Your task to perform on an android device: Go to settings Image 0: 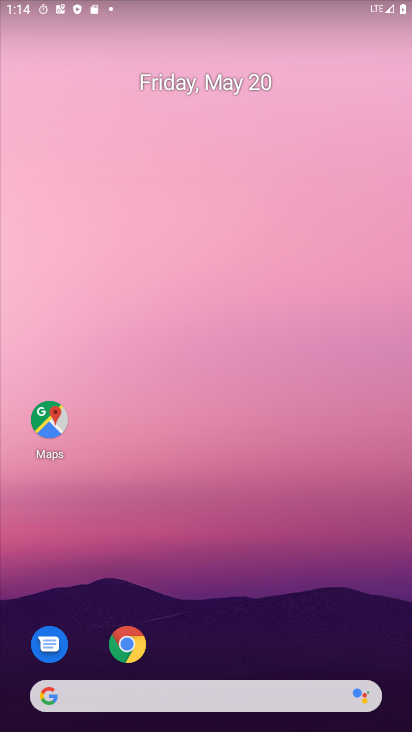
Step 0: drag from (221, 564) to (176, 115)
Your task to perform on an android device: Go to settings Image 1: 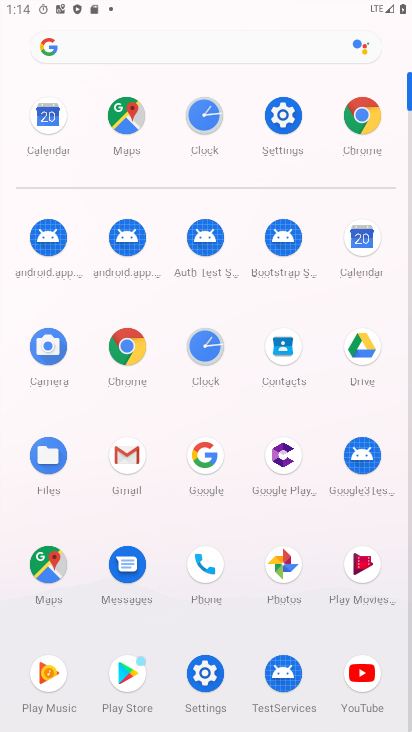
Step 1: click (297, 129)
Your task to perform on an android device: Go to settings Image 2: 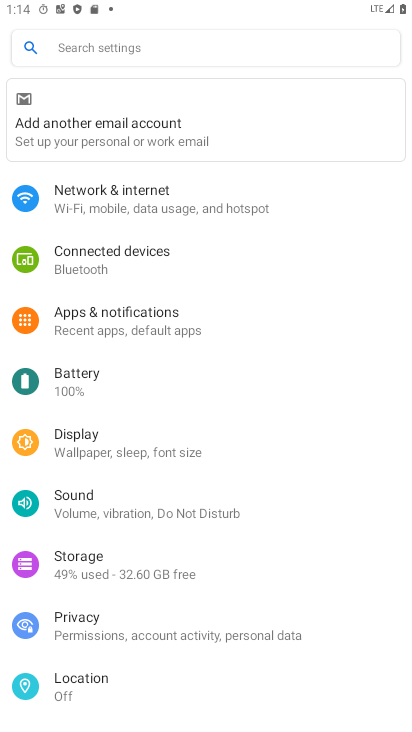
Step 2: task complete